Your task to perform on an android device: Go to calendar. Show me events next week Image 0: 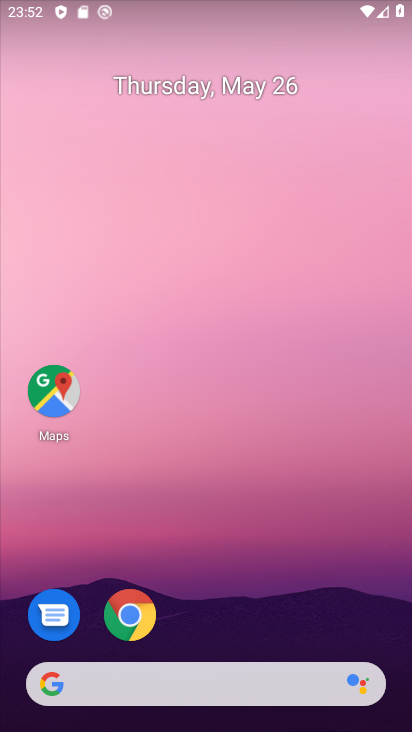
Step 0: click (375, 86)
Your task to perform on an android device: Go to calendar. Show me events next week Image 1: 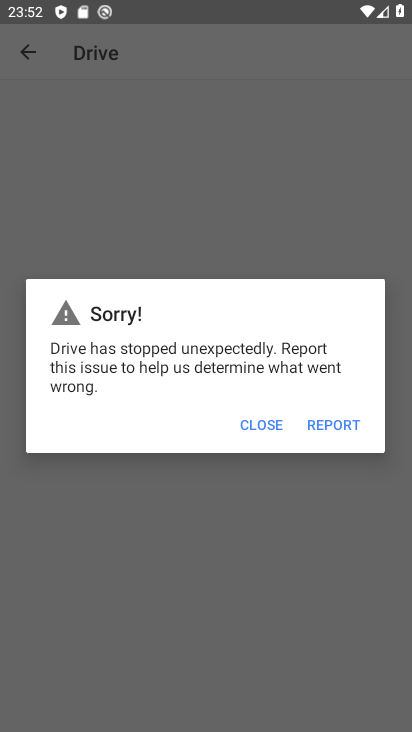
Step 1: press home button
Your task to perform on an android device: Go to calendar. Show me events next week Image 2: 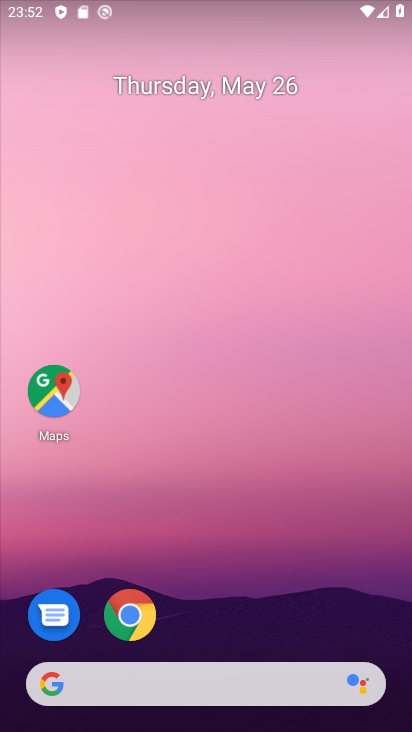
Step 2: drag from (368, 620) to (370, 266)
Your task to perform on an android device: Go to calendar. Show me events next week Image 3: 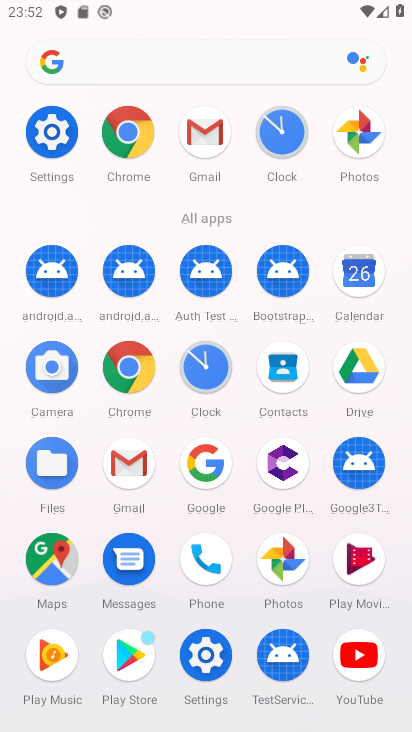
Step 3: click (350, 286)
Your task to perform on an android device: Go to calendar. Show me events next week Image 4: 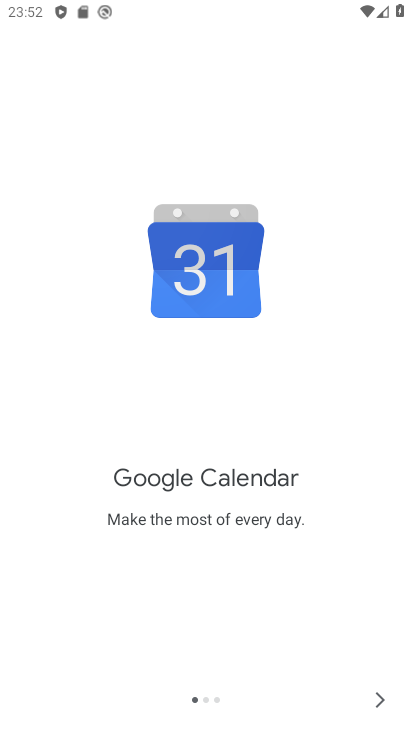
Step 4: click (372, 700)
Your task to perform on an android device: Go to calendar. Show me events next week Image 5: 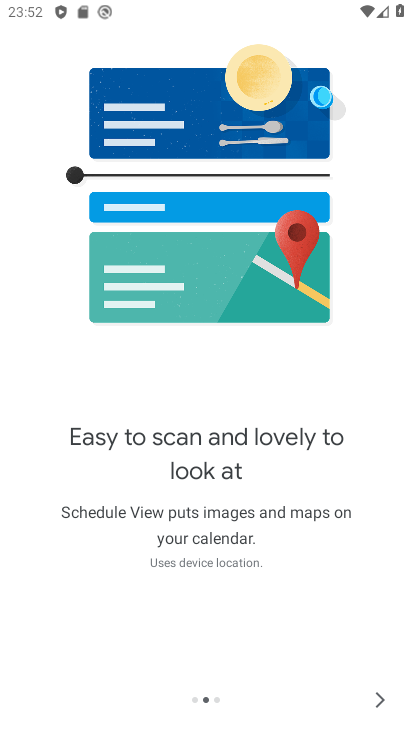
Step 5: click (372, 700)
Your task to perform on an android device: Go to calendar. Show me events next week Image 6: 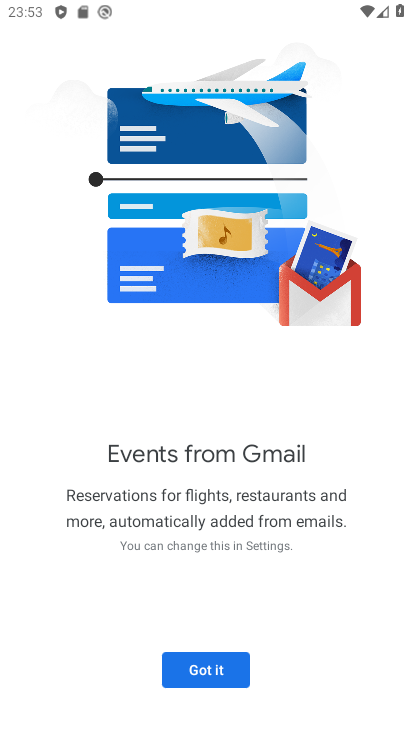
Step 6: click (224, 677)
Your task to perform on an android device: Go to calendar. Show me events next week Image 7: 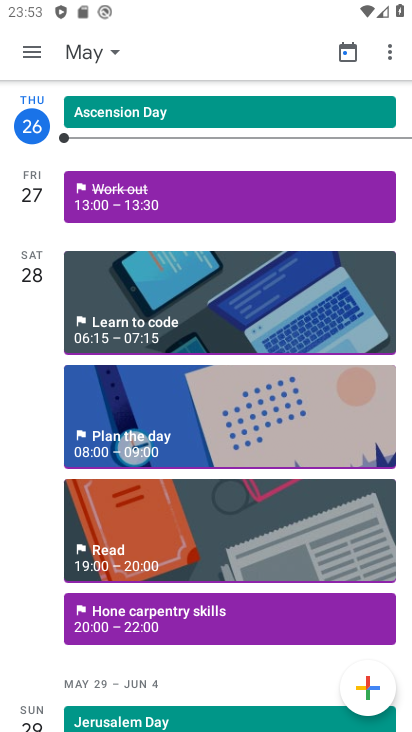
Step 7: click (115, 51)
Your task to perform on an android device: Go to calendar. Show me events next week Image 8: 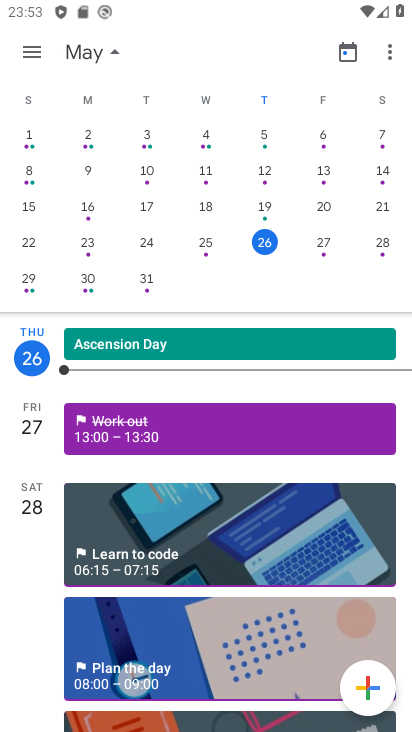
Step 8: click (89, 284)
Your task to perform on an android device: Go to calendar. Show me events next week Image 9: 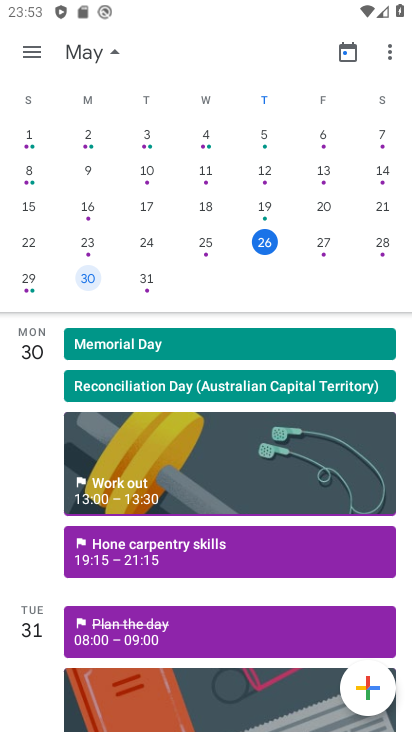
Step 9: task complete